Your task to perform on an android device: toggle data saver in the chrome app Image 0: 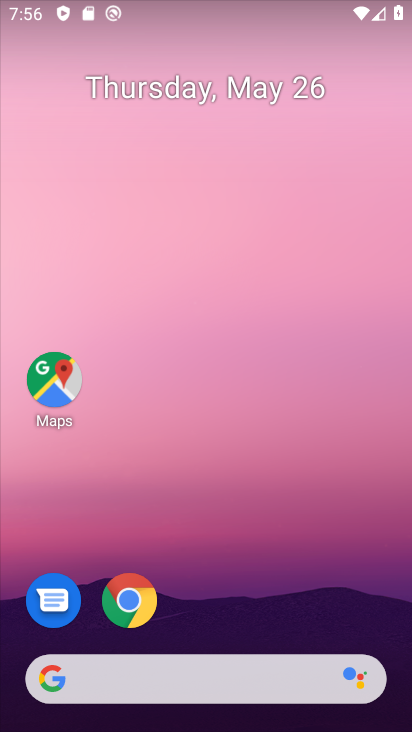
Step 0: click (130, 596)
Your task to perform on an android device: toggle data saver in the chrome app Image 1: 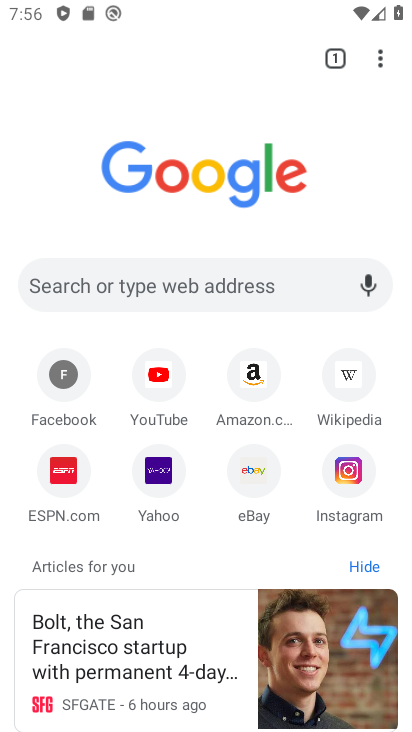
Step 1: click (395, 54)
Your task to perform on an android device: toggle data saver in the chrome app Image 2: 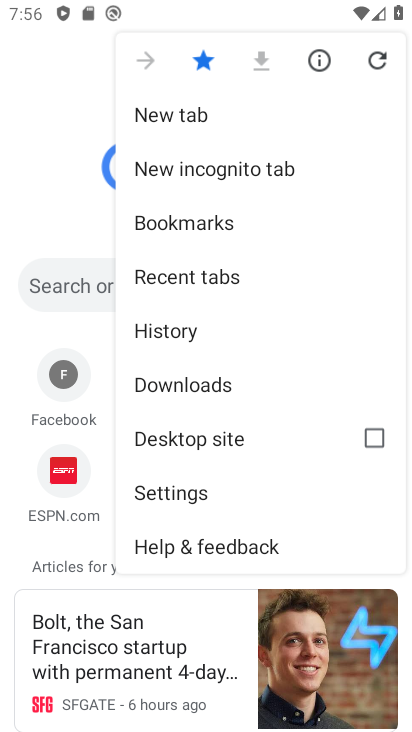
Step 2: click (200, 500)
Your task to perform on an android device: toggle data saver in the chrome app Image 3: 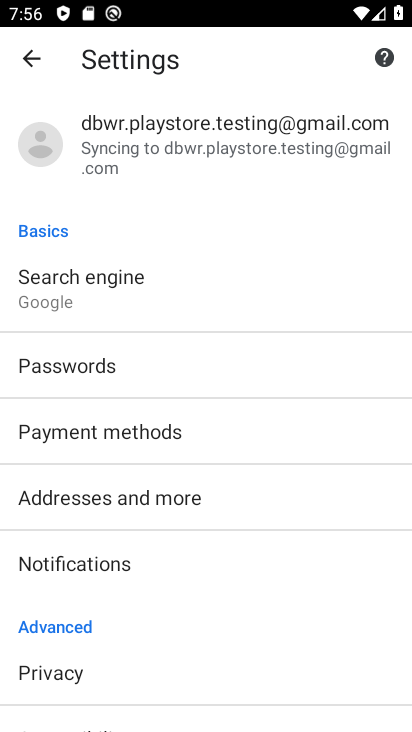
Step 3: drag from (218, 698) to (177, 203)
Your task to perform on an android device: toggle data saver in the chrome app Image 4: 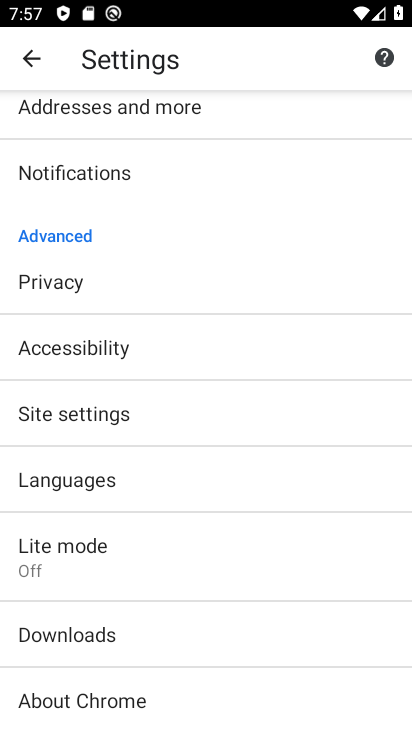
Step 4: click (155, 556)
Your task to perform on an android device: toggle data saver in the chrome app Image 5: 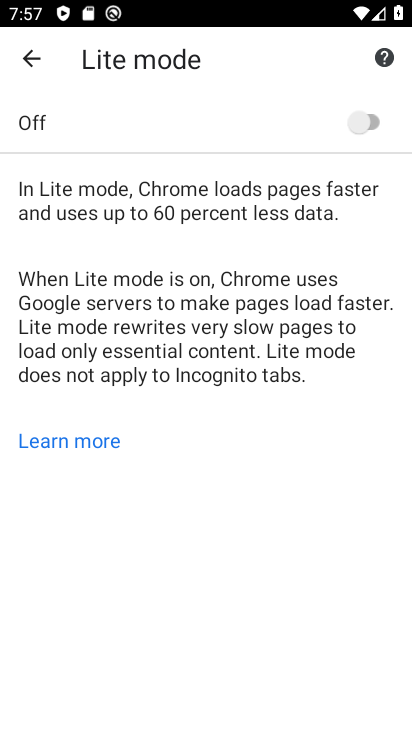
Step 5: click (374, 123)
Your task to perform on an android device: toggle data saver in the chrome app Image 6: 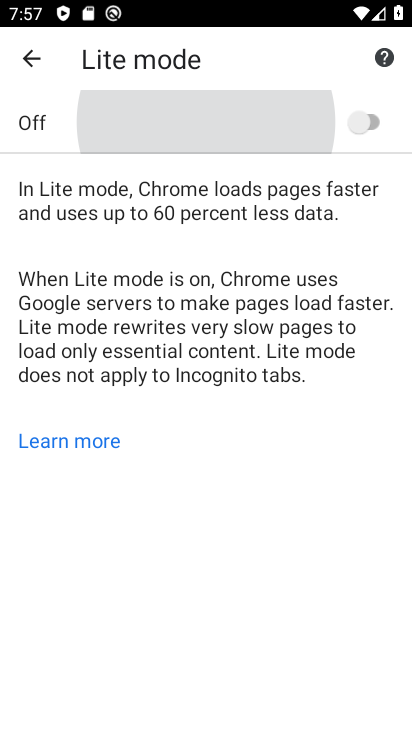
Step 6: click (374, 123)
Your task to perform on an android device: toggle data saver in the chrome app Image 7: 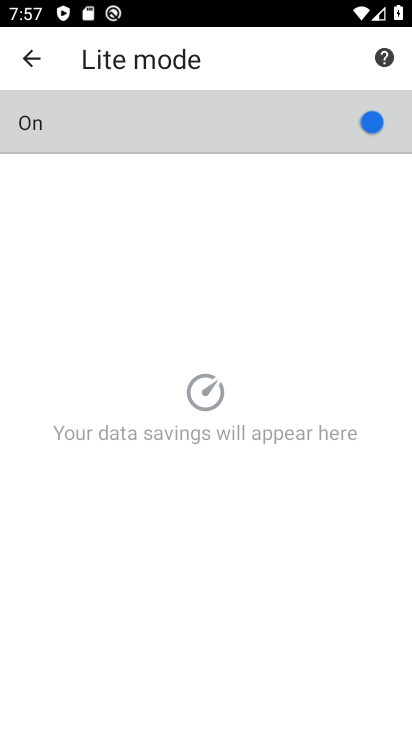
Step 7: click (374, 123)
Your task to perform on an android device: toggle data saver in the chrome app Image 8: 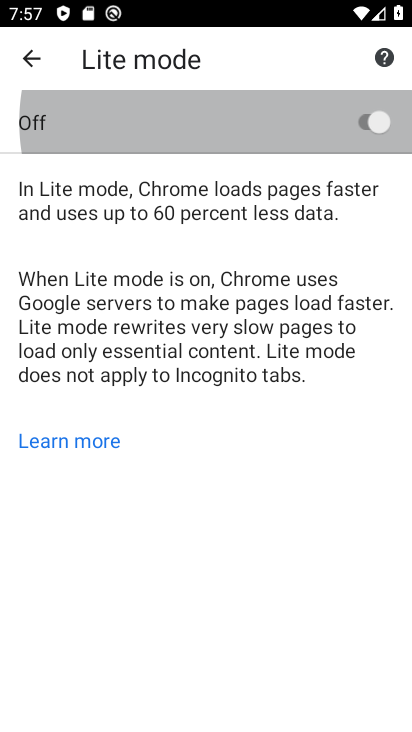
Step 8: click (374, 123)
Your task to perform on an android device: toggle data saver in the chrome app Image 9: 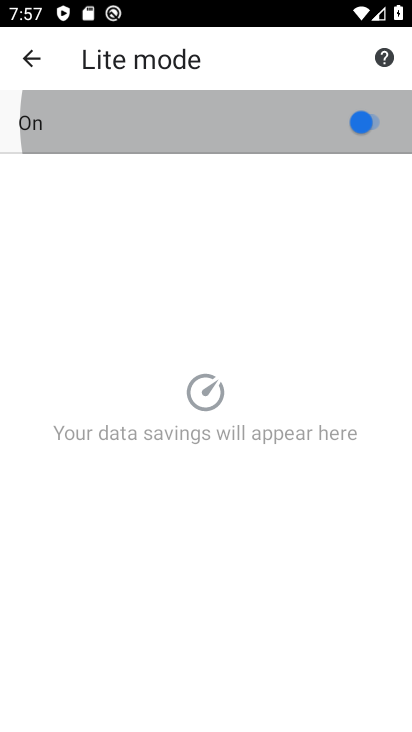
Step 9: click (374, 123)
Your task to perform on an android device: toggle data saver in the chrome app Image 10: 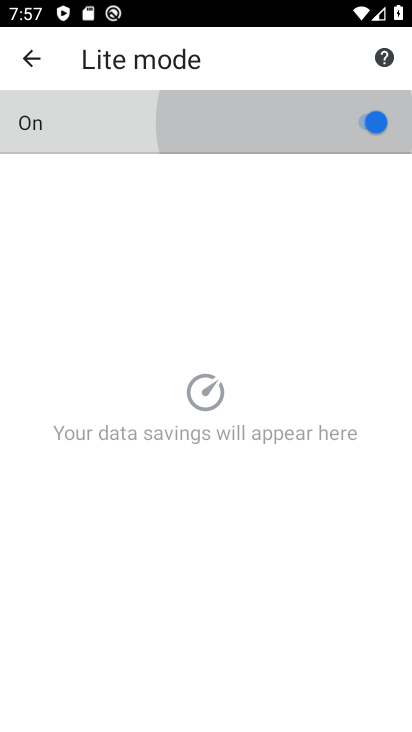
Step 10: click (374, 123)
Your task to perform on an android device: toggle data saver in the chrome app Image 11: 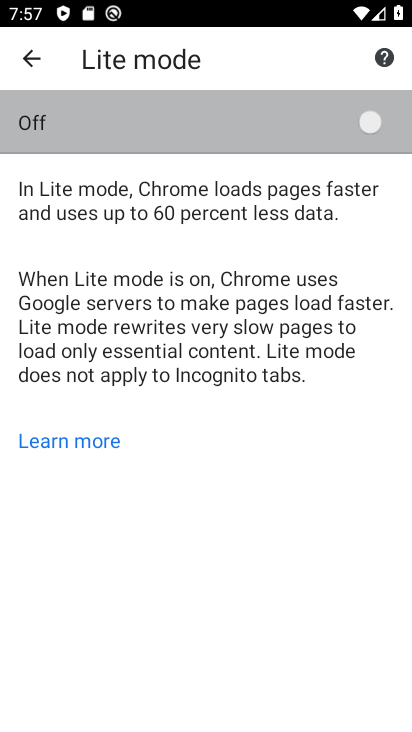
Step 11: click (374, 123)
Your task to perform on an android device: toggle data saver in the chrome app Image 12: 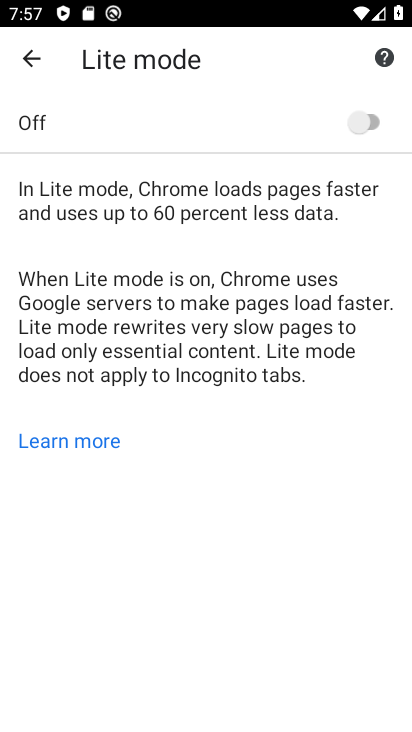
Step 12: click (371, 125)
Your task to perform on an android device: toggle data saver in the chrome app Image 13: 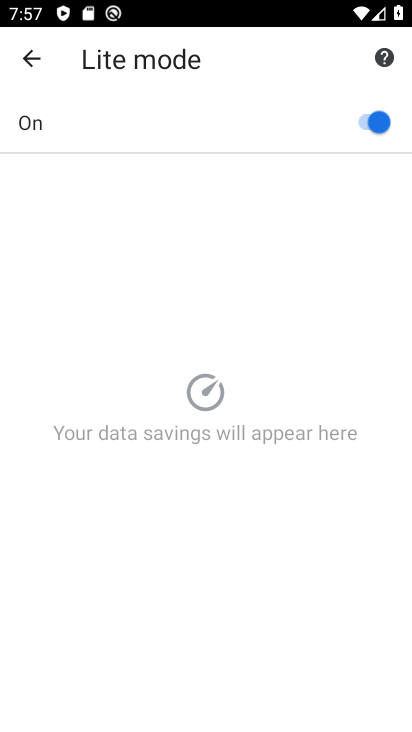
Step 13: task complete